Your task to perform on an android device: delete location history Image 0: 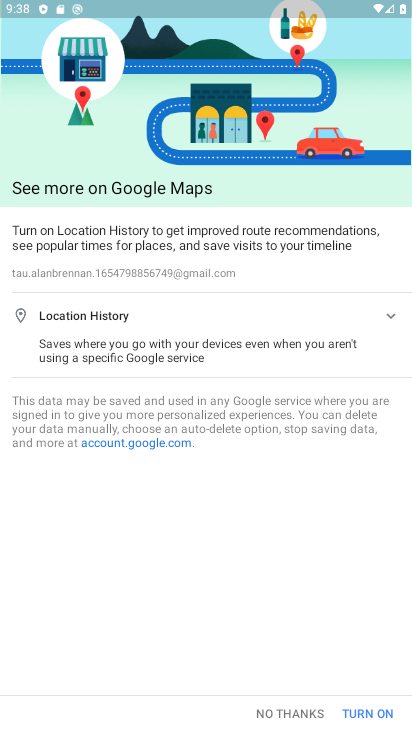
Step 0: press home button
Your task to perform on an android device: delete location history Image 1: 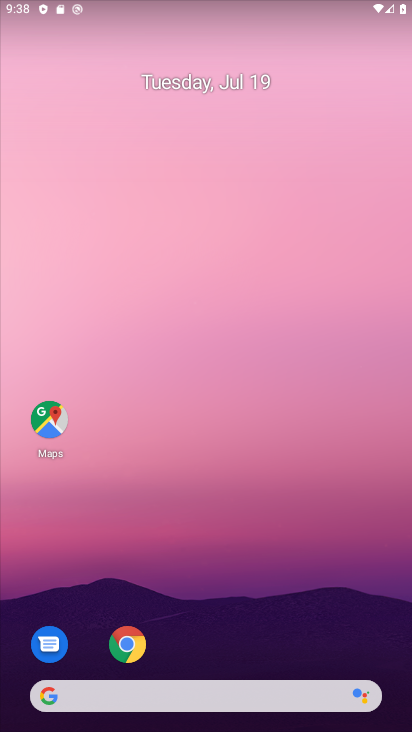
Step 1: drag from (249, 663) to (260, 237)
Your task to perform on an android device: delete location history Image 2: 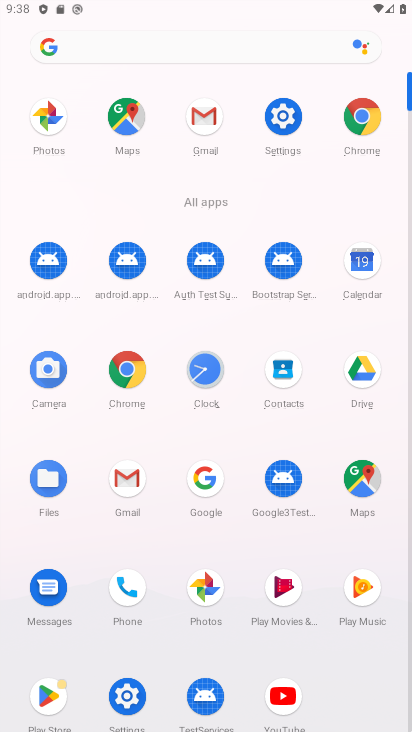
Step 2: click (117, 697)
Your task to perform on an android device: delete location history Image 3: 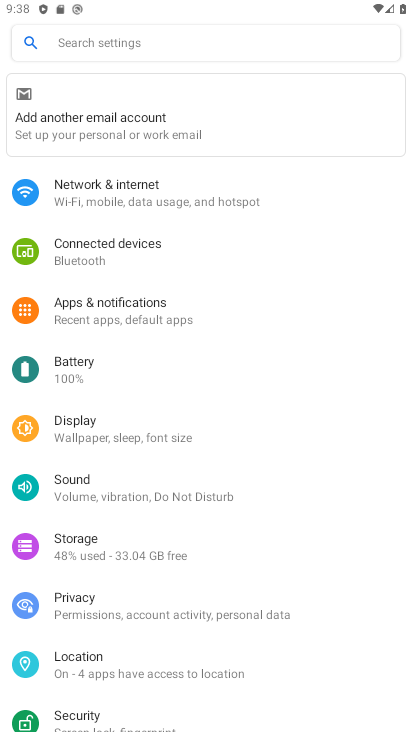
Step 3: click (150, 663)
Your task to perform on an android device: delete location history Image 4: 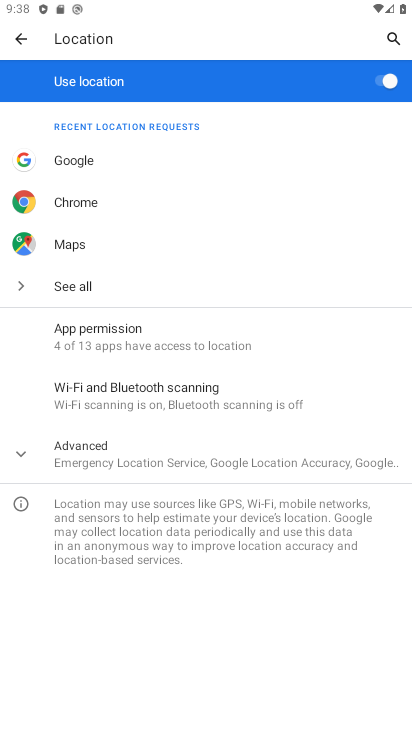
Step 4: click (165, 456)
Your task to perform on an android device: delete location history Image 5: 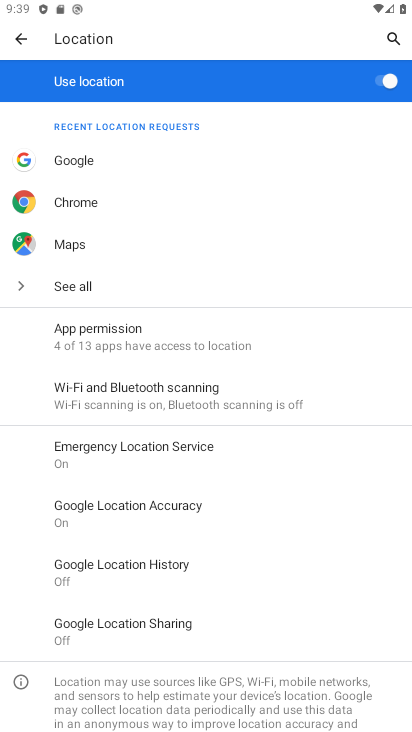
Step 5: click (176, 564)
Your task to perform on an android device: delete location history Image 6: 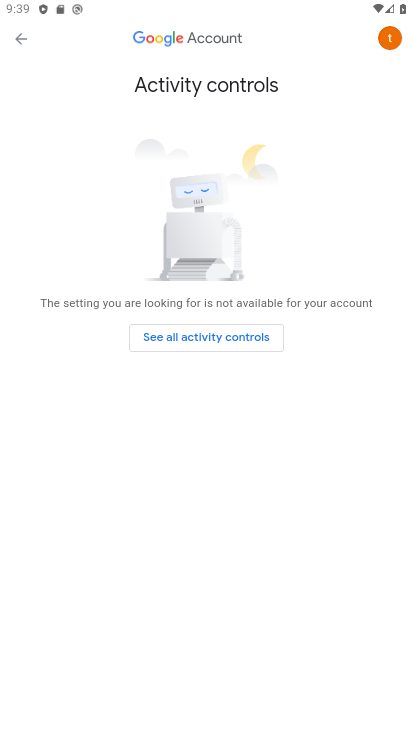
Step 6: task complete